Your task to perform on an android device: Open Google Chrome and open the bookmarks view Image 0: 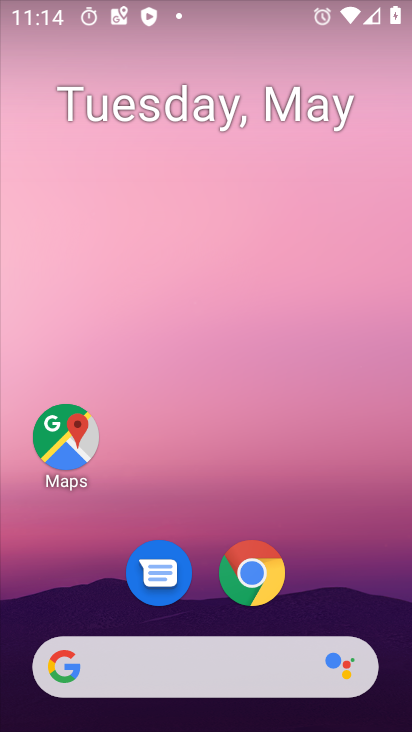
Step 0: drag from (321, 719) to (404, 294)
Your task to perform on an android device: Open Google Chrome and open the bookmarks view Image 1: 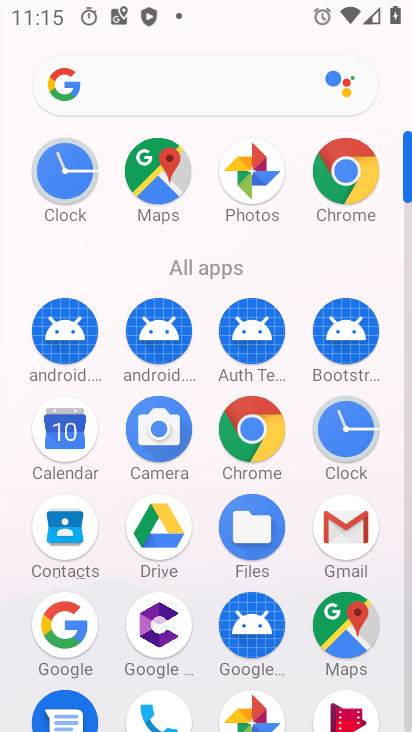
Step 1: drag from (203, 486) to (270, 247)
Your task to perform on an android device: Open Google Chrome and open the bookmarks view Image 2: 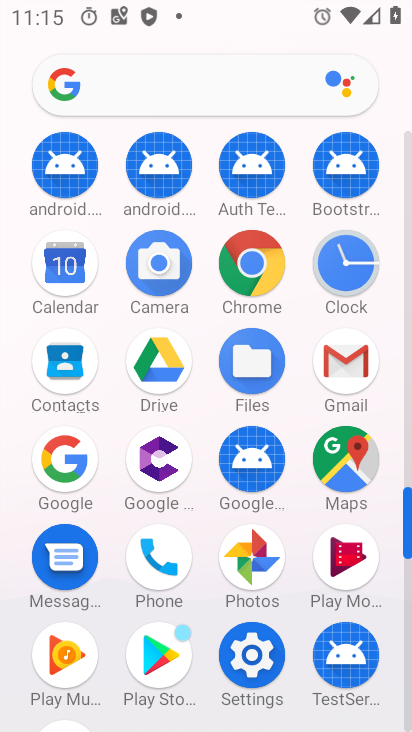
Step 2: click (230, 254)
Your task to perform on an android device: Open Google Chrome and open the bookmarks view Image 3: 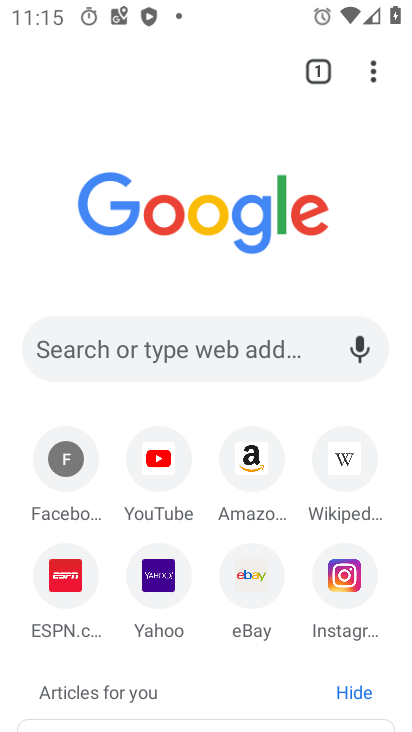
Step 3: click (373, 91)
Your task to perform on an android device: Open Google Chrome and open the bookmarks view Image 4: 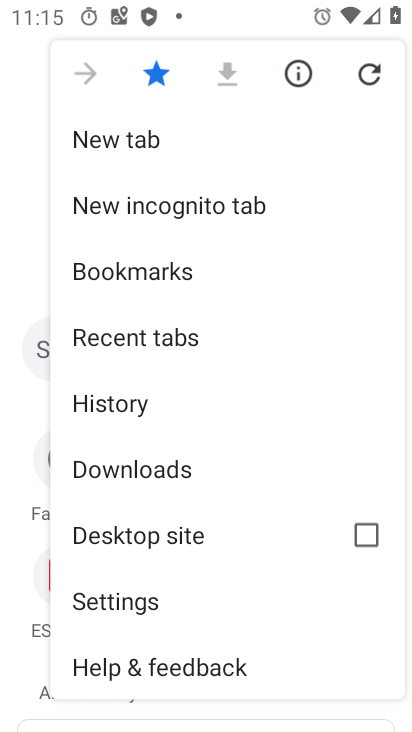
Step 4: click (123, 278)
Your task to perform on an android device: Open Google Chrome and open the bookmarks view Image 5: 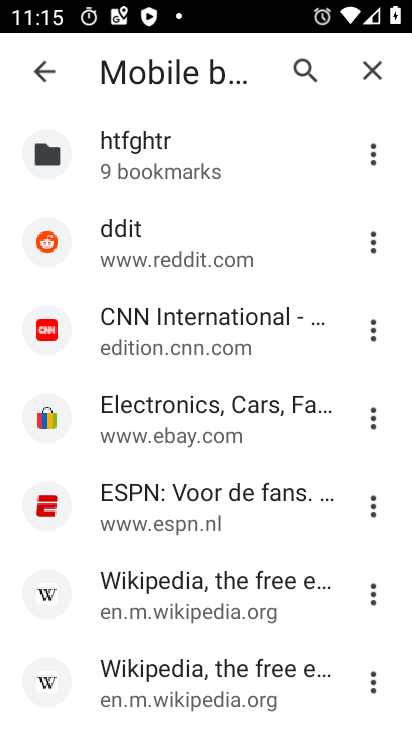
Step 5: task complete